Your task to perform on an android device: Open notification settings Image 0: 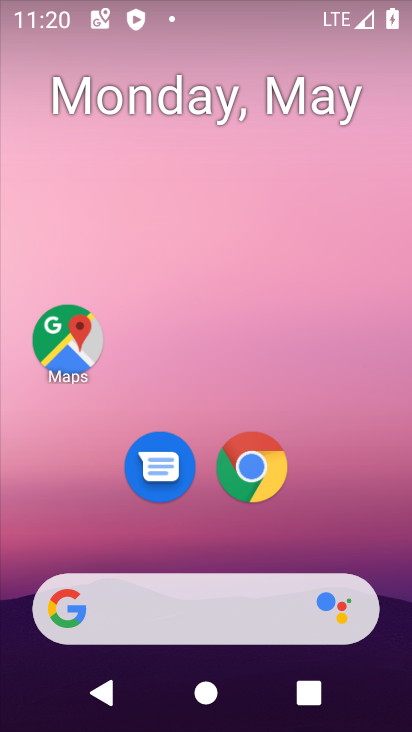
Step 0: drag from (388, 676) to (289, 138)
Your task to perform on an android device: Open notification settings Image 1: 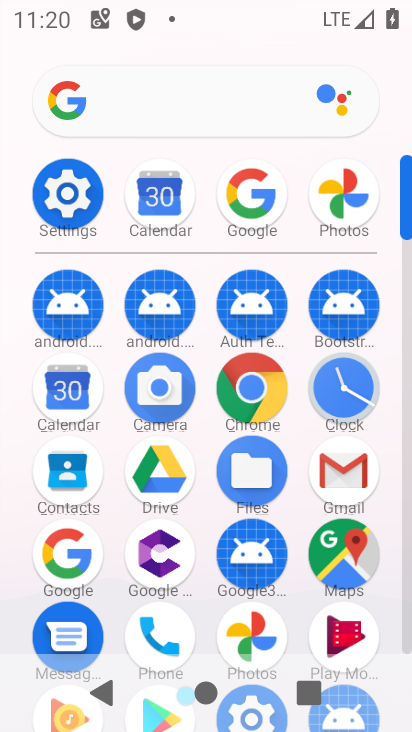
Step 1: click (75, 195)
Your task to perform on an android device: Open notification settings Image 2: 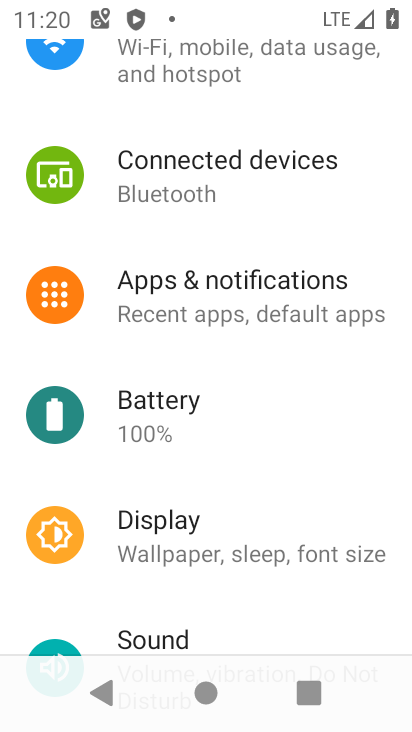
Step 2: click (179, 295)
Your task to perform on an android device: Open notification settings Image 3: 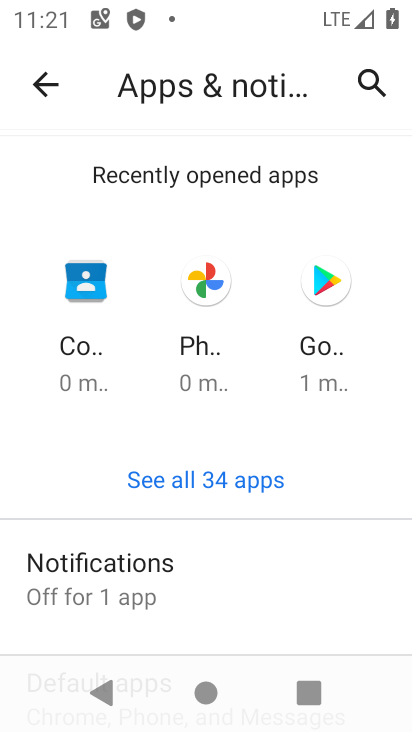
Step 3: drag from (235, 592) to (274, 257)
Your task to perform on an android device: Open notification settings Image 4: 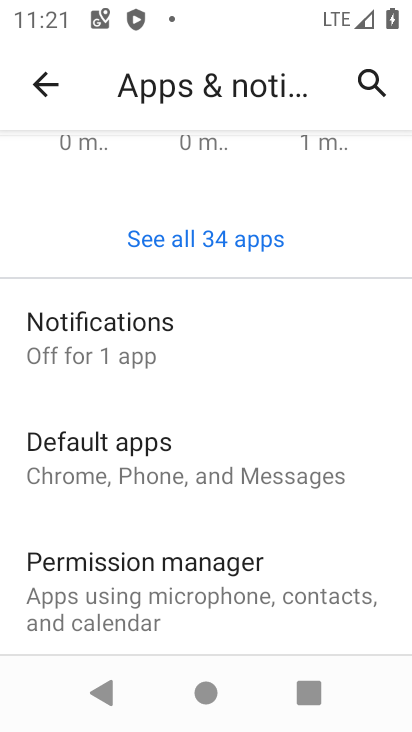
Step 4: click (81, 340)
Your task to perform on an android device: Open notification settings Image 5: 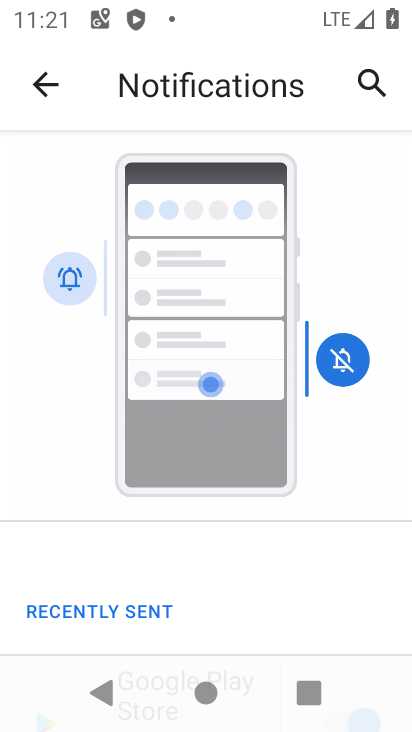
Step 5: drag from (291, 607) to (353, 180)
Your task to perform on an android device: Open notification settings Image 6: 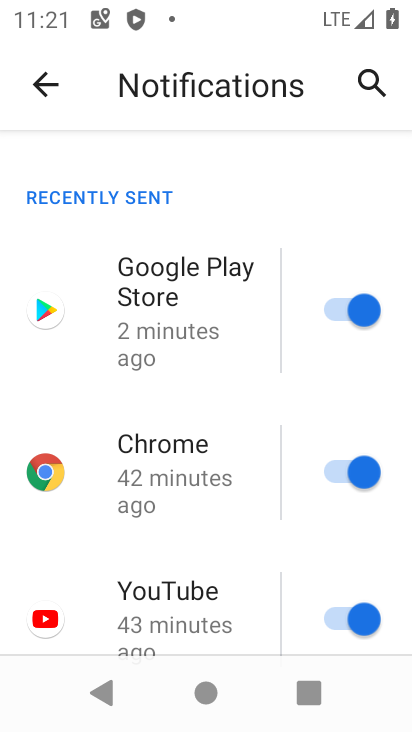
Step 6: drag from (261, 615) to (284, 265)
Your task to perform on an android device: Open notification settings Image 7: 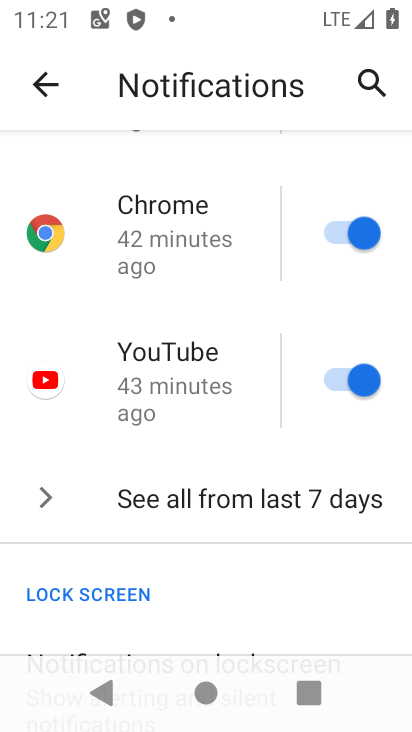
Step 7: drag from (258, 599) to (264, 250)
Your task to perform on an android device: Open notification settings Image 8: 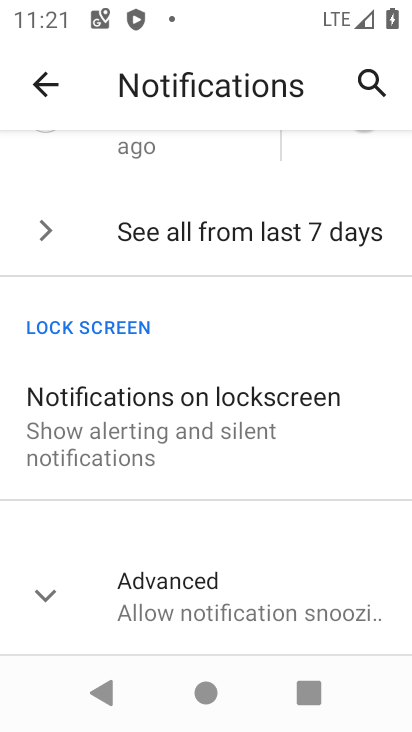
Step 8: click (36, 590)
Your task to perform on an android device: Open notification settings Image 9: 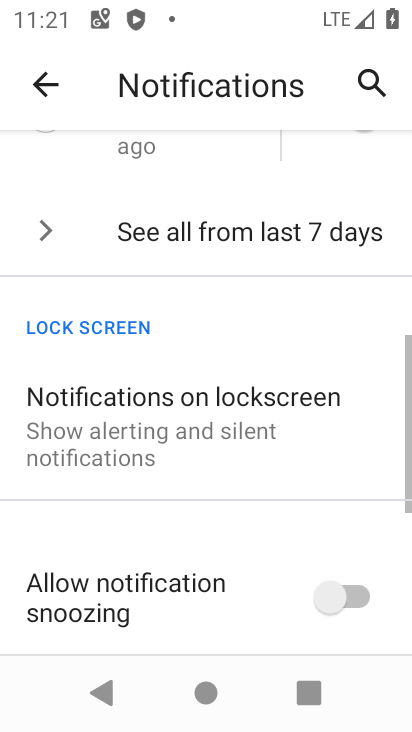
Step 9: task complete